Your task to perform on an android device: Show me popular games on the Play Store Image 0: 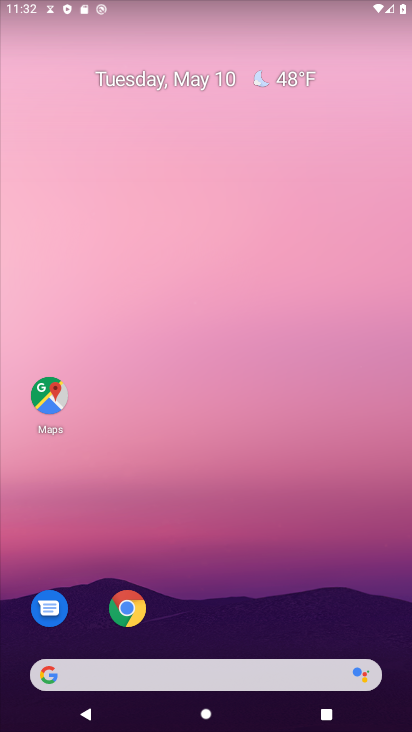
Step 0: drag from (262, 622) to (118, 266)
Your task to perform on an android device: Show me popular games on the Play Store Image 1: 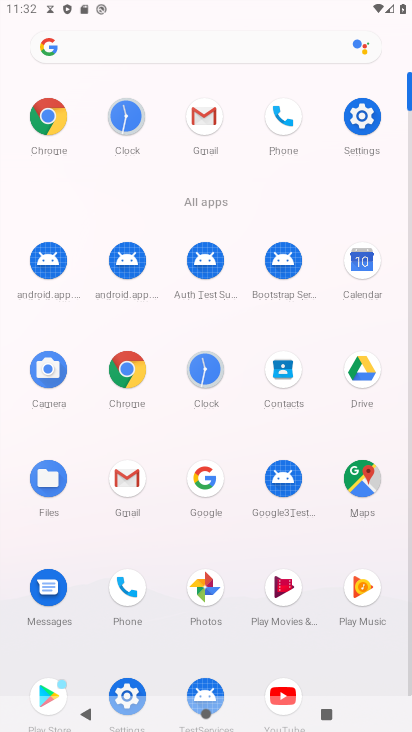
Step 1: click (45, 683)
Your task to perform on an android device: Show me popular games on the Play Store Image 2: 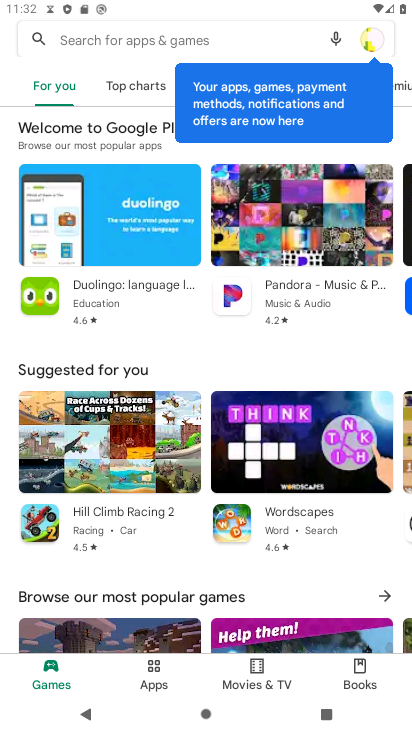
Step 2: click (144, 84)
Your task to perform on an android device: Show me popular games on the Play Store Image 3: 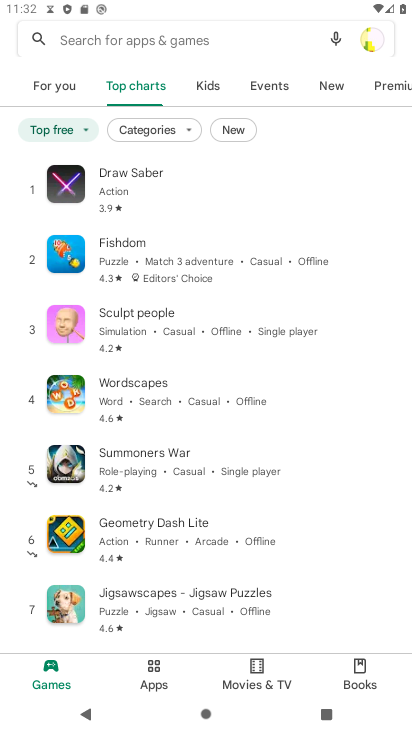
Step 3: task complete